Your task to perform on an android device: find which apps use the phone's location Image 0: 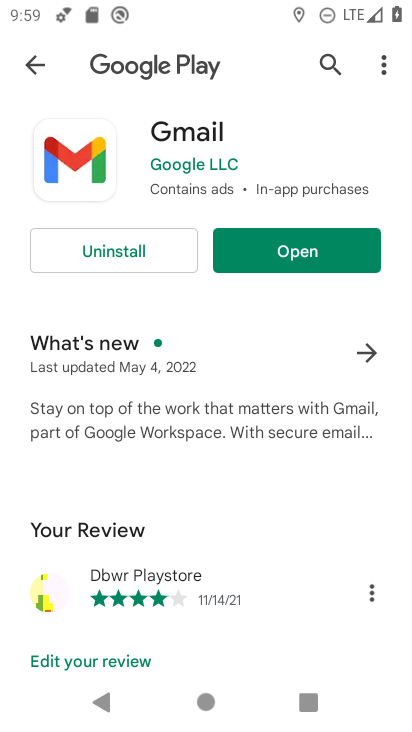
Step 0: press home button
Your task to perform on an android device: find which apps use the phone's location Image 1: 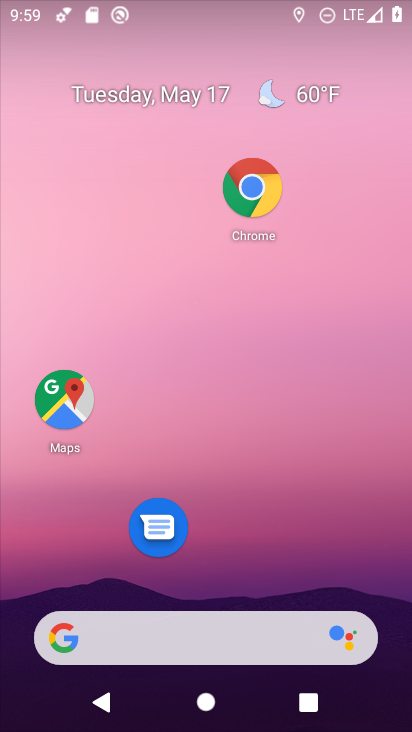
Step 1: drag from (294, 553) to (333, 219)
Your task to perform on an android device: find which apps use the phone's location Image 2: 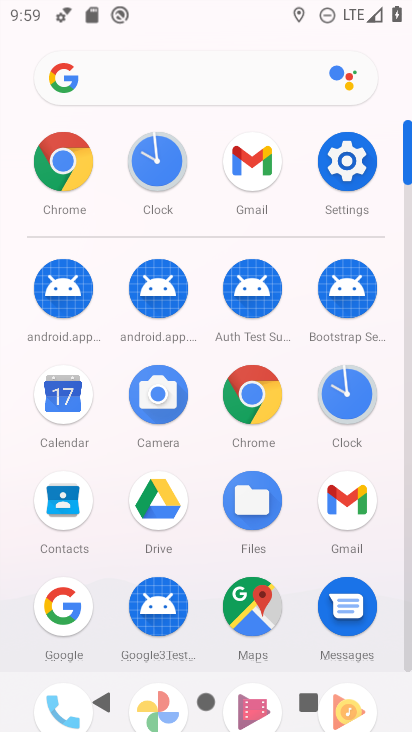
Step 2: click (356, 202)
Your task to perform on an android device: find which apps use the phone's location Image 3: 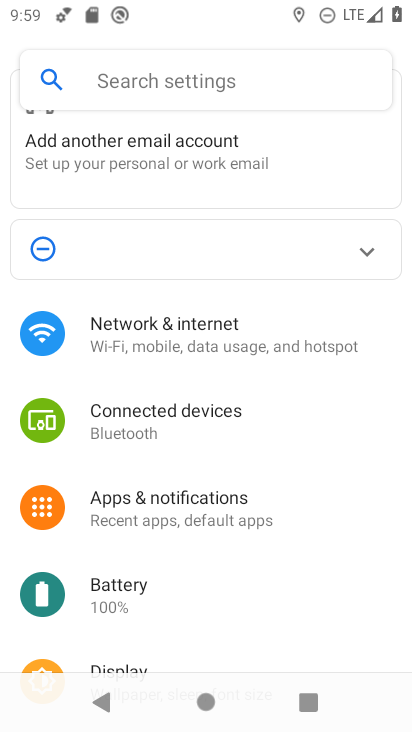
Step 3: drag from (191, 546) to (188, 246)
Your task to perform on an android device: find which apps use the phone's location Image 4: 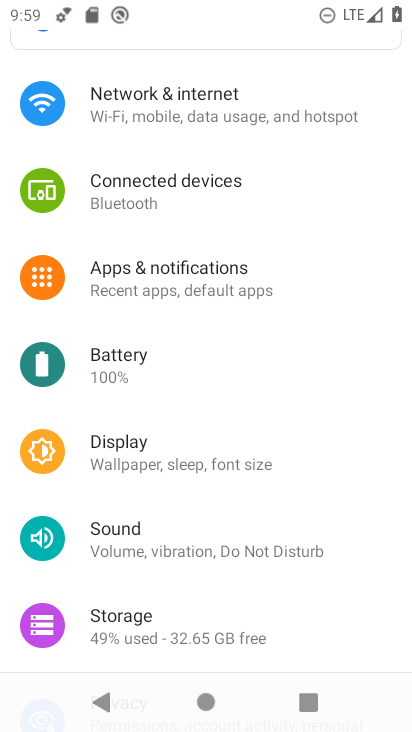
Step 4: drag from (203, 561) to (241, 301)
Your task to perform on an android device: find which apps use the phone's location Image 5: 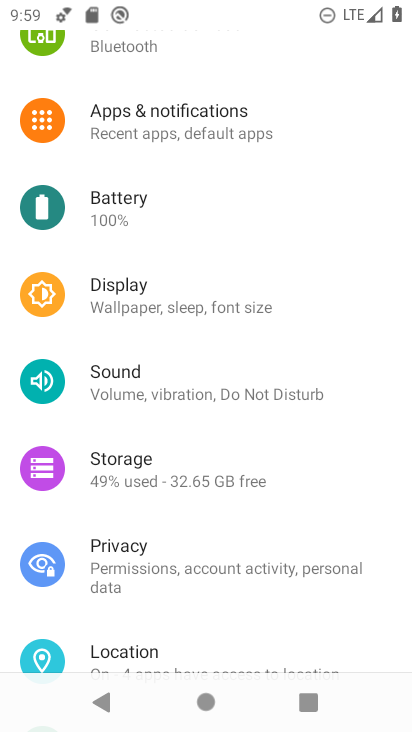
Step 5: click (170, 661)
Your task to perform on an android device: find which apps use the phone's location Image 6: 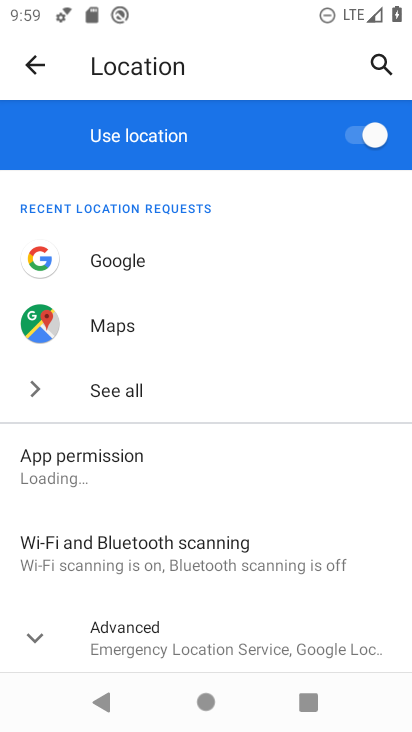
Step 6: task complete